Your task to perform on an android device: Open Yahoo.com Image 0: 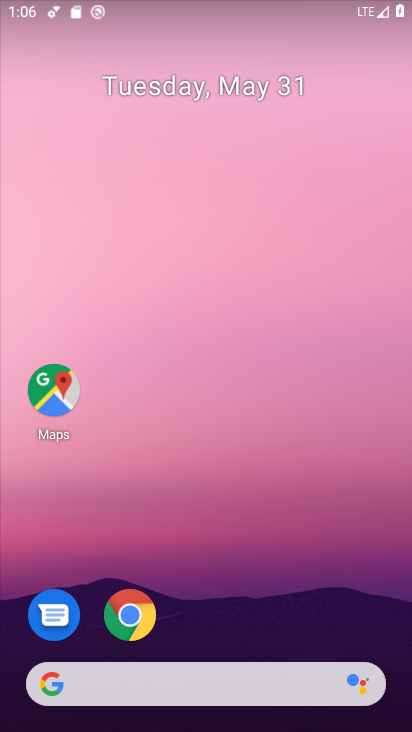
Step 0: click (134, 614)
Your task to perform on an android device: Open Yahoo.com Image 1: 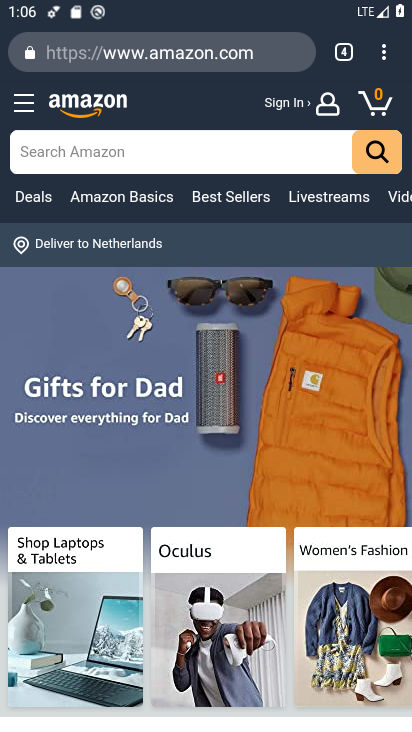
Step 1: click (169, 56)
Your task to perform on an android device: Open Yahoo.com Image 2: 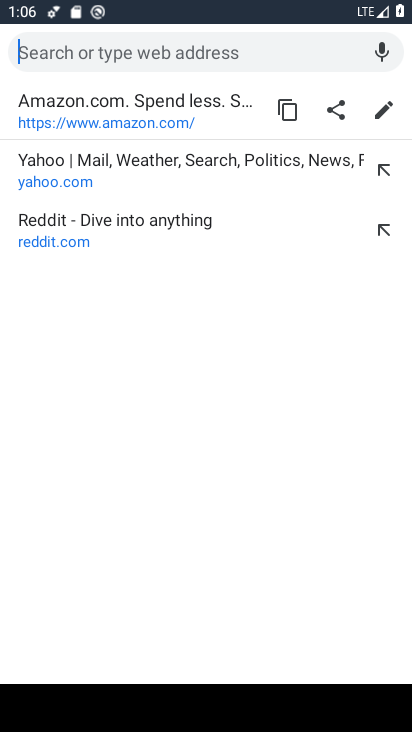
Step 2: type "Yahoo.com"
Your task to perform on an android device: Open Yahoo.com Image 3: 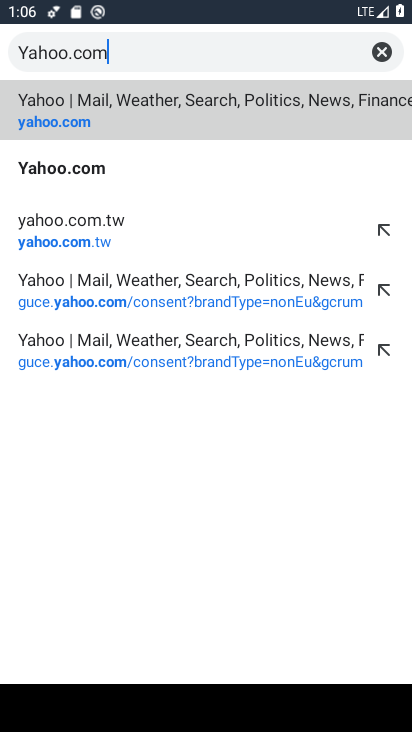
Step 3: click (311, 135)
Your task to perform on an android device: Open Yahoo.com Image 4: 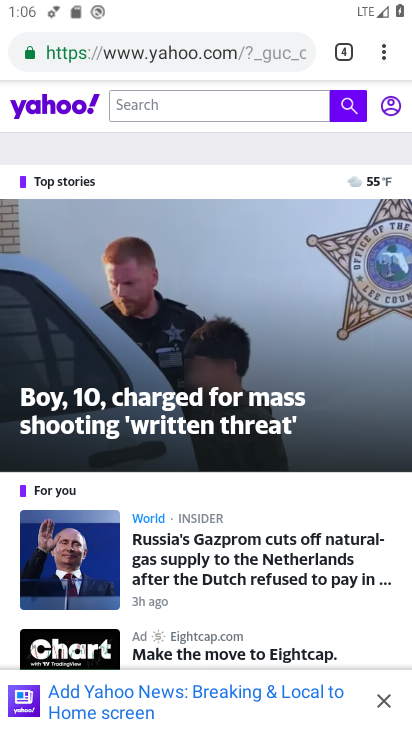
Step 4: task complete